Your task to perform on an android device: Open the Play Movies app and select the watchlist tab. Image 0: 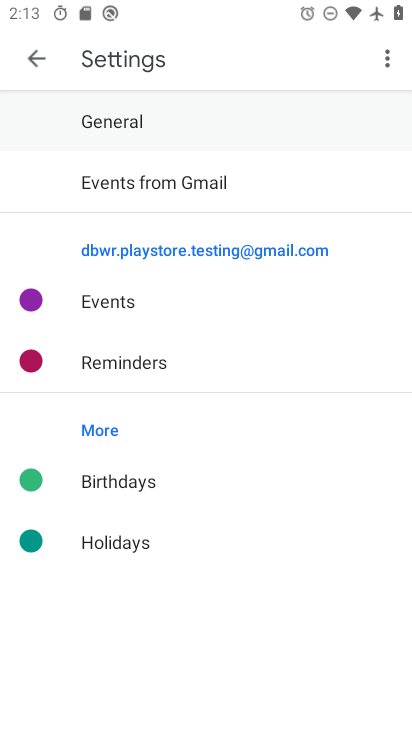
Step 0: press home button
Your task to perform on an android device: Open the Play Movies app and select the watchlist tab. Image 1: 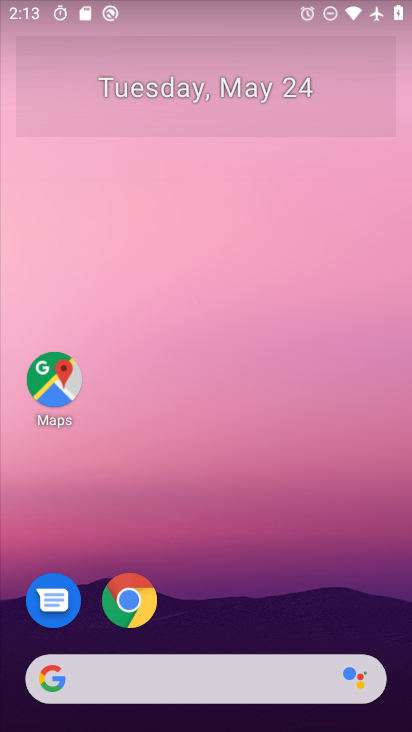
Step 1: drag from (356, 532) to (168, 86)
Your task to perform on an android device: Open the Play Movies app and select the watchlist tab. Image 2: 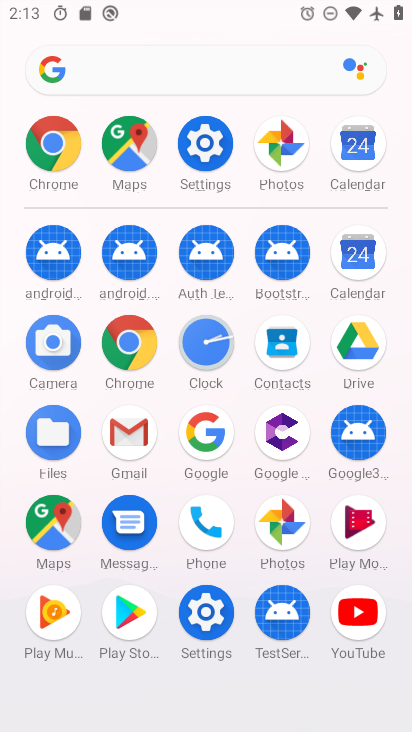
Step 2: drag from (238, 558) to (262, 205)
Your task to perform on an android device: Open the Play Movies app and select the watchlist tab. Image 3: 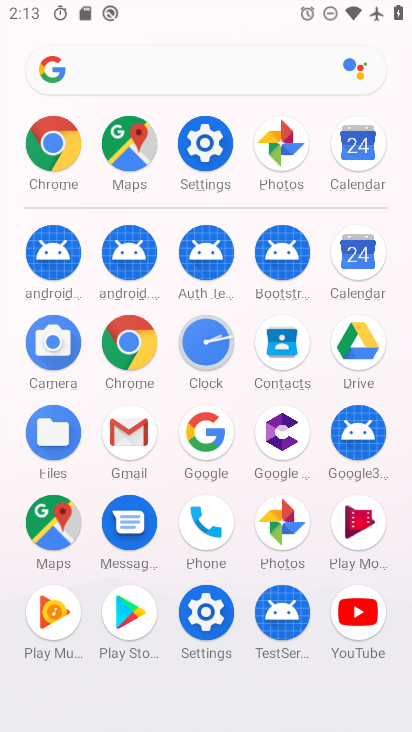
Step 3: click (353, 528)
Your task to perform on an android device: Open the Play Movies app and select the watchlist tab. Image 4: 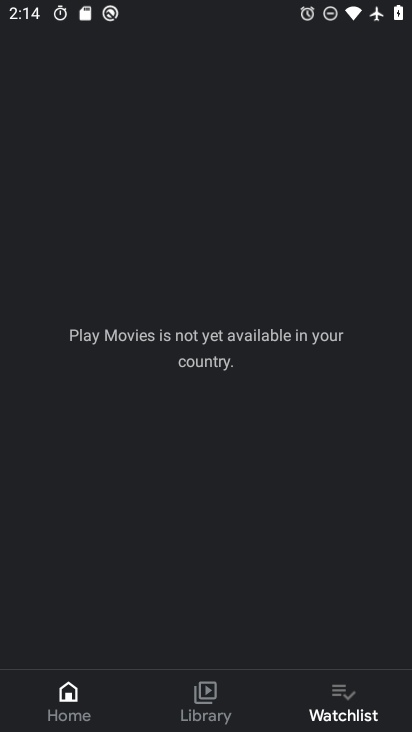
Step 4: click (340, 699)
Your task to perform on an android device: Open the Play Movies app and select the watchlist tab. Image 5: 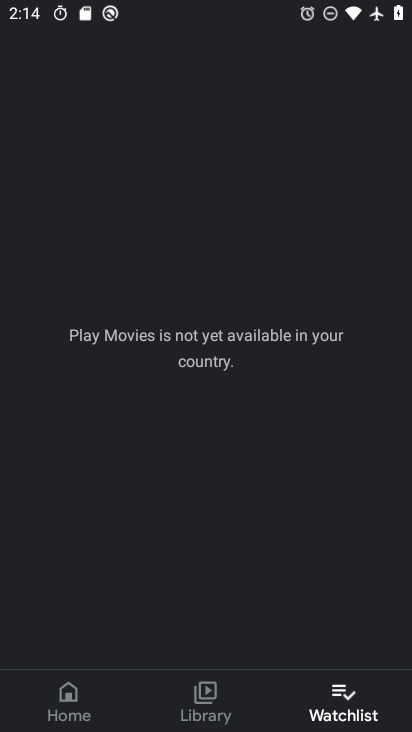
Step 5: task complete